Your task to perform on an android device: Open Google Chrome and click the shortcut for Amazon.com Image 0: 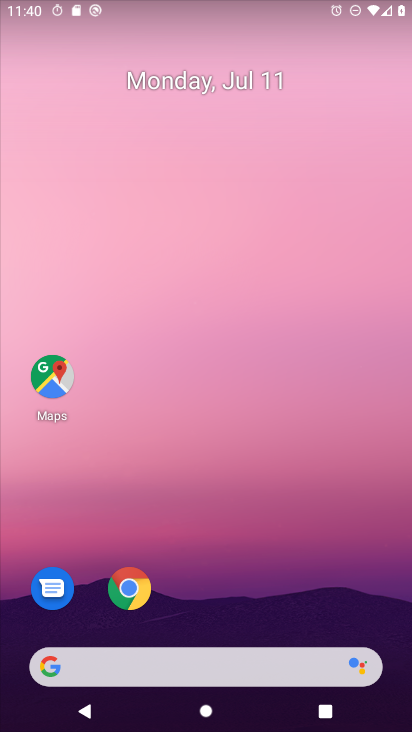
Step 0: click (110, 600)
Your task to perform on an android device: Open Google Chrome and click the shortcut for Amazon.com Image 1: 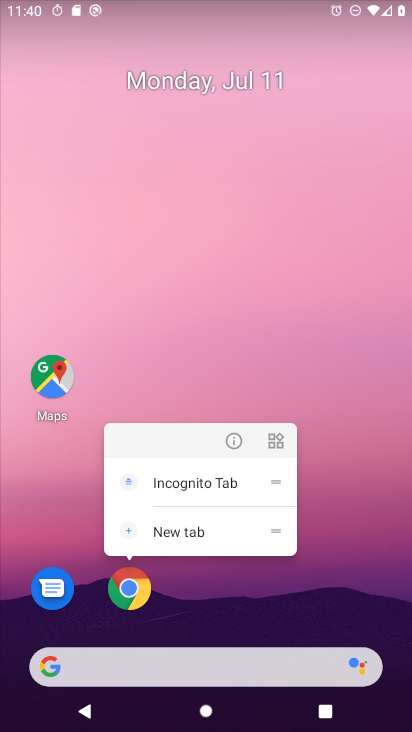
Step 1: click (134, 582)
Your task to perform on an android device: Open Google Chrome and click the shortcut for Amazon.com Image 2: 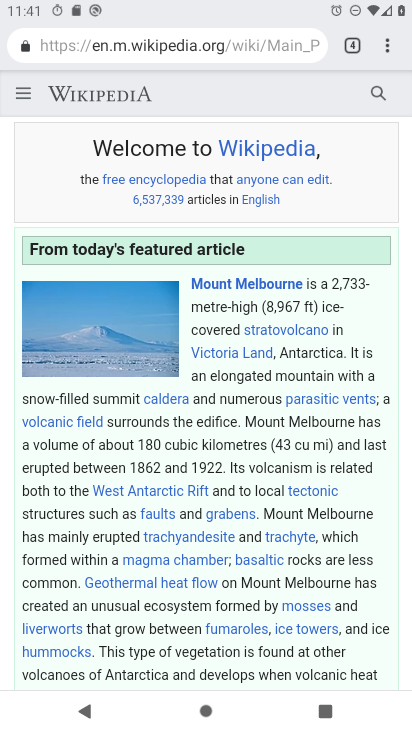
Step 2: click (346, 43)
Your task to perform on an android device: Open Google Chrome and click the shortcut for Amazon.com Image 3: 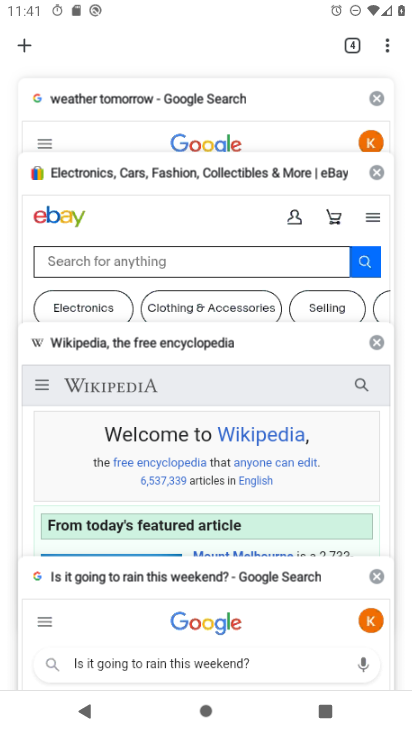
Step 3: click (23, 37)
Your task to perform on an android device: Open Google Chrome and click the shortcut for Amazon.com Image 4: 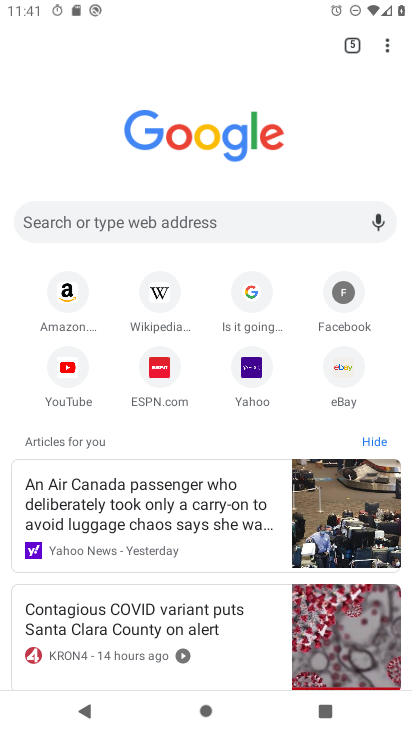
Step 4: click (67, 289)
Your task to perform on an android device: Open Google Chrome and click the shortcut for Amazon.com Image 5: 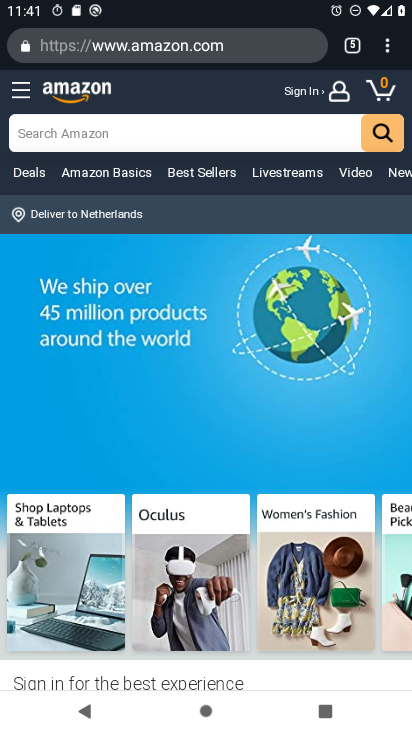
Step 5: task complete